Your task to perform on an android device: Open the camera Image 0: 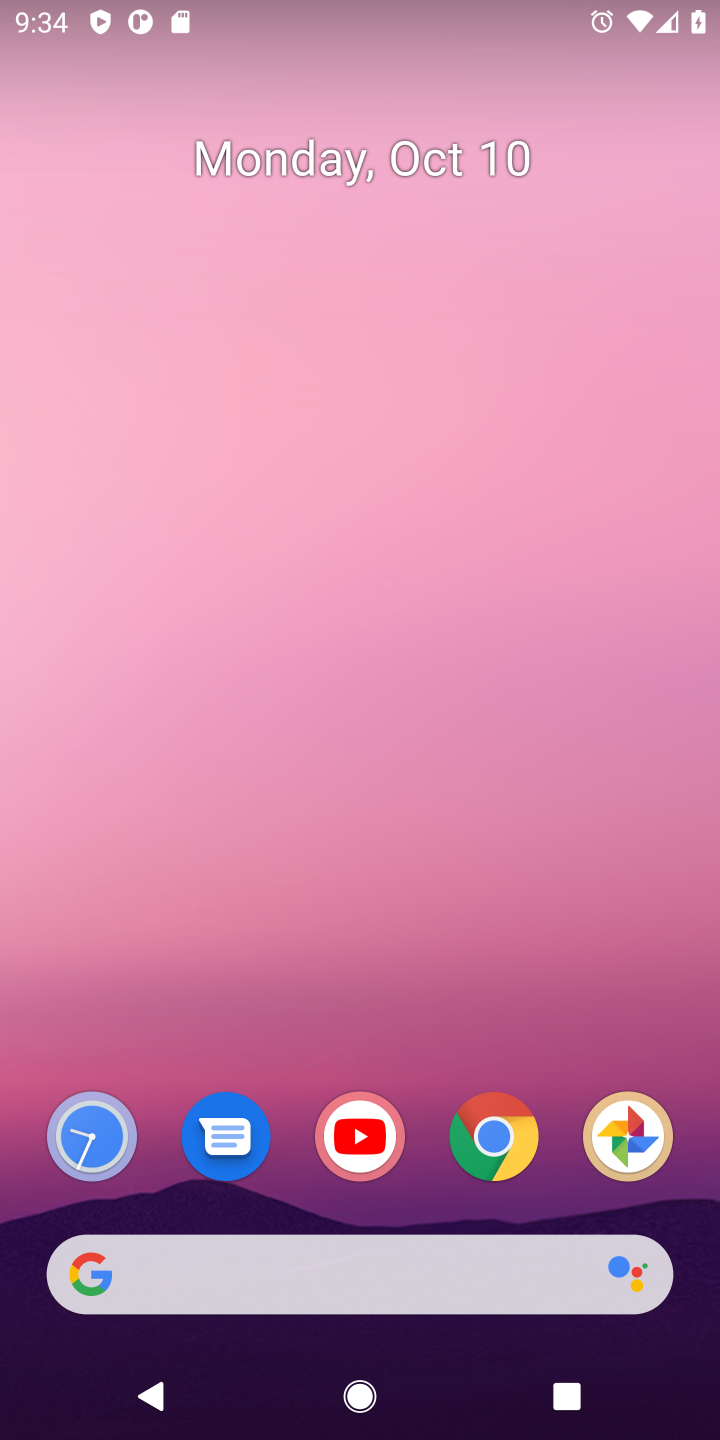
Step 0: drag from (288, 1201) to (232, 218)
Your task to perform on an android device: Open the camera Image 1: 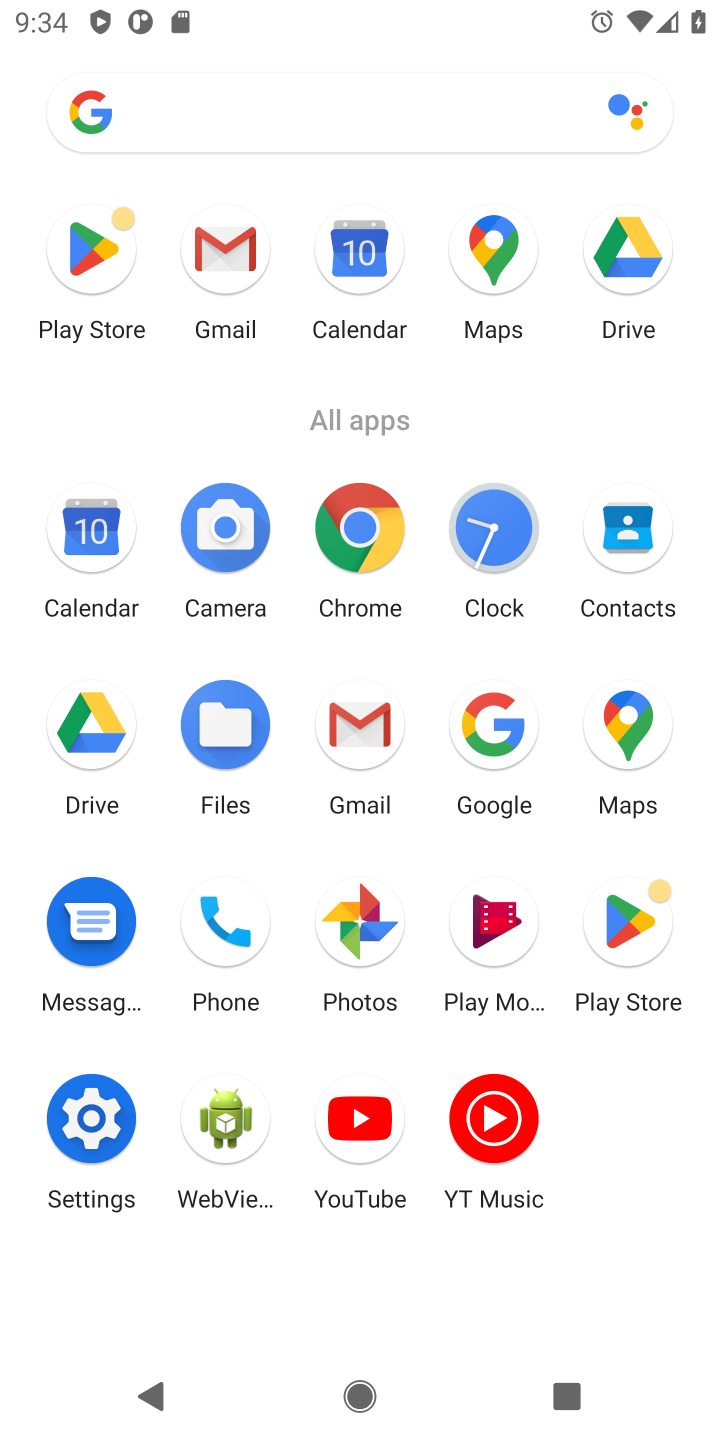
Step 1: click (218, 524)
Your task to perform on an android device: Open the camera Image 2: 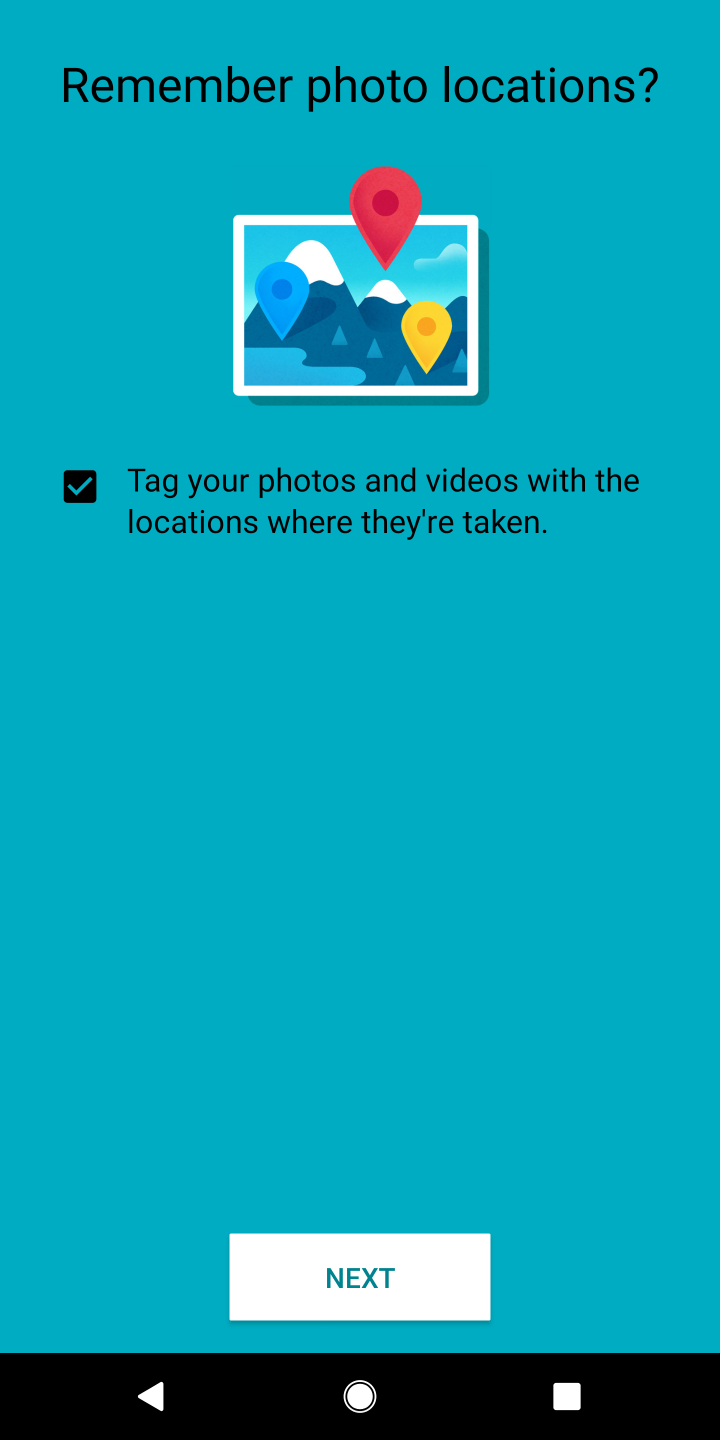
Step 2: click (353, 1281)
Your task to perform on an android device: Open the camera Image 3: 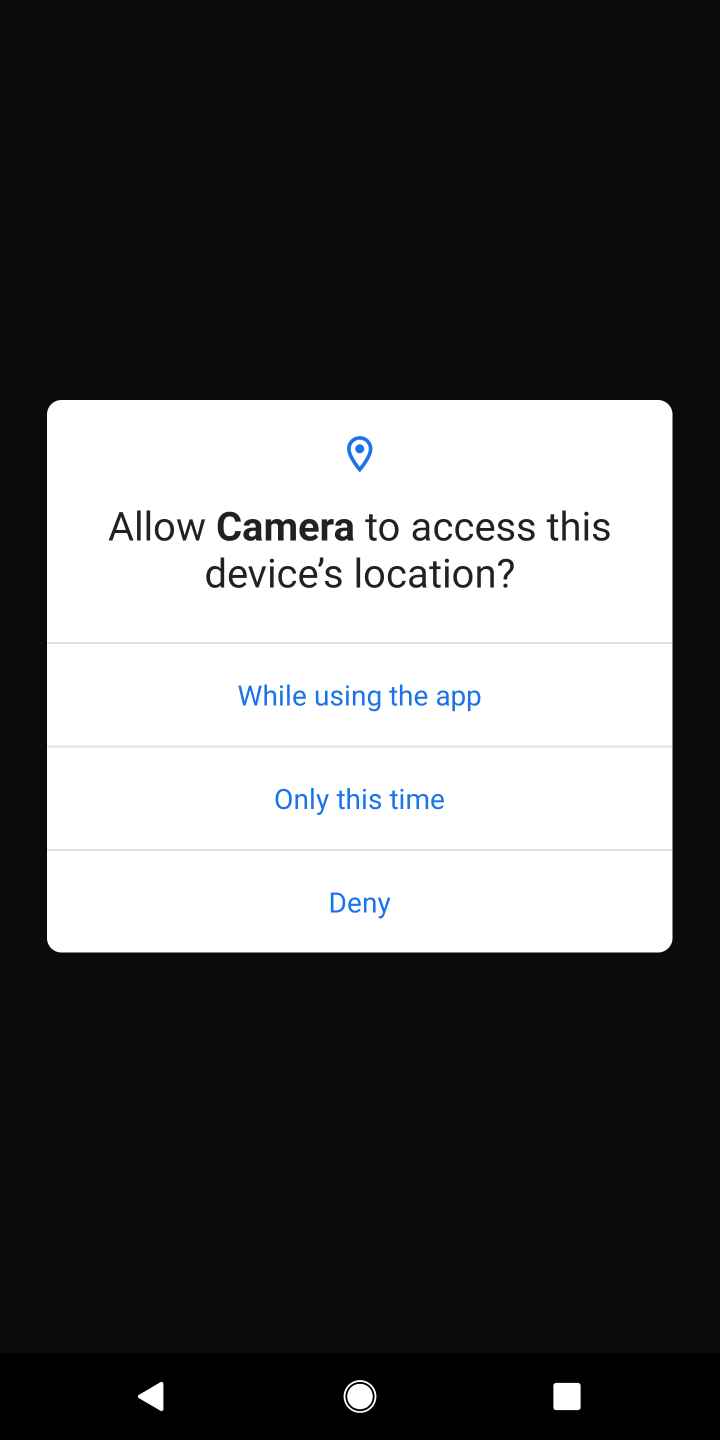
Step 3: click (416, 716)
Your task to perform on an android device: Open the camera Image 4: 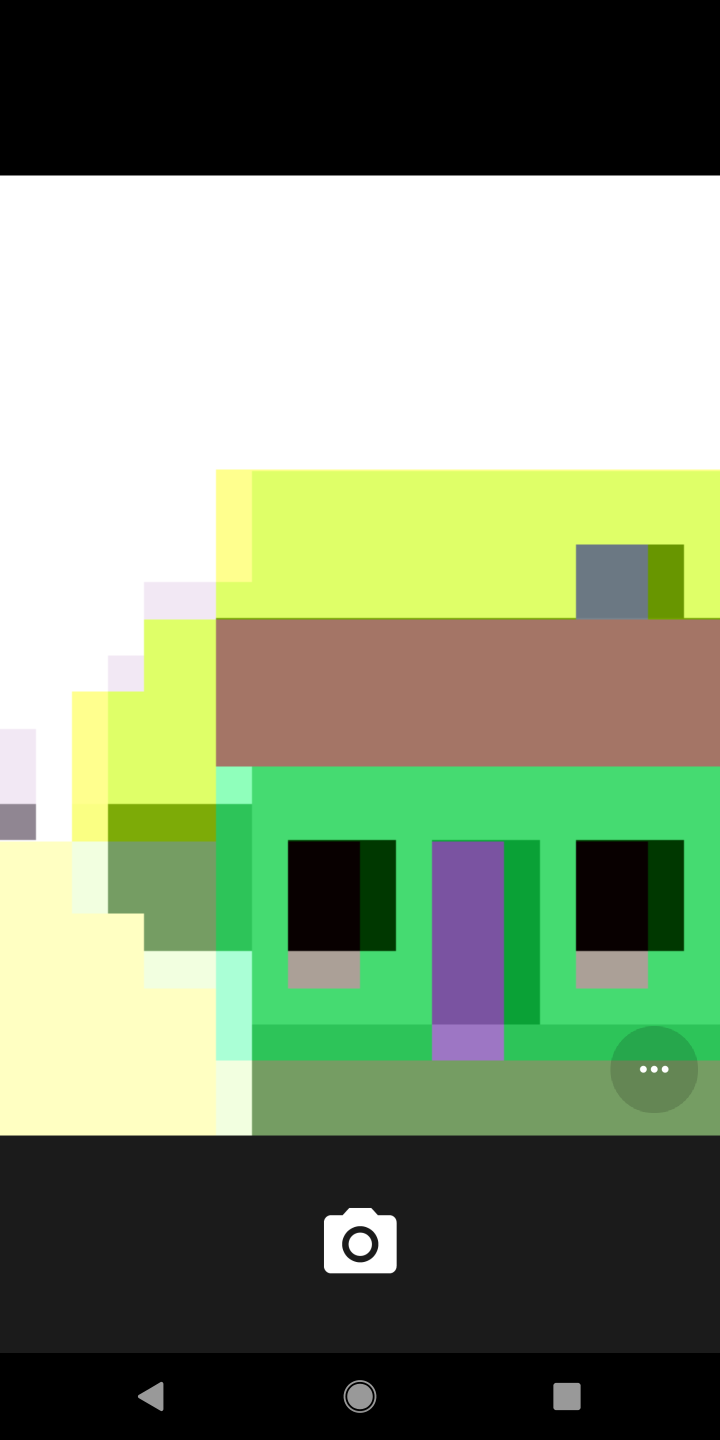
Step 4: task complete